Your task to perform on an android device: Go to Google Image 0: 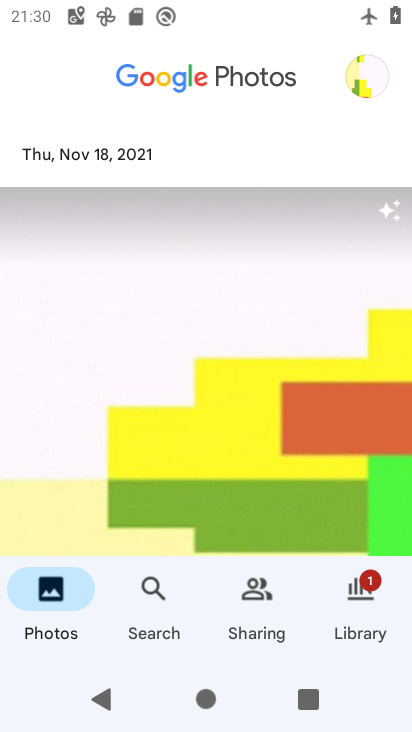
Step 0: press home button
Your task to perform on an android device: Go to Google Image 1: 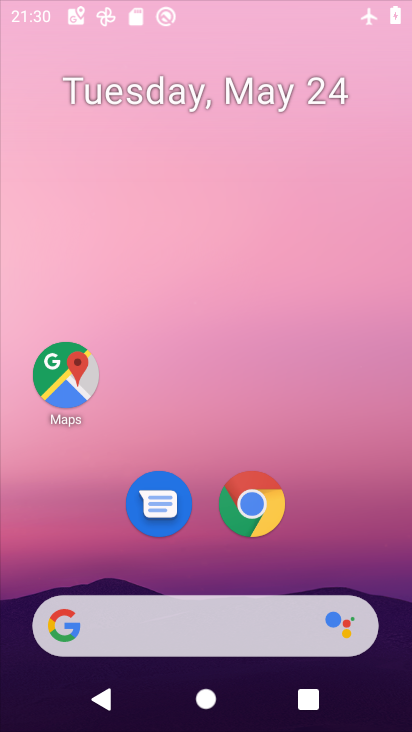
Step 1: drag from (233, 467) to (341, 38)
Your task to perform on an android device: Go to Google Image 2: 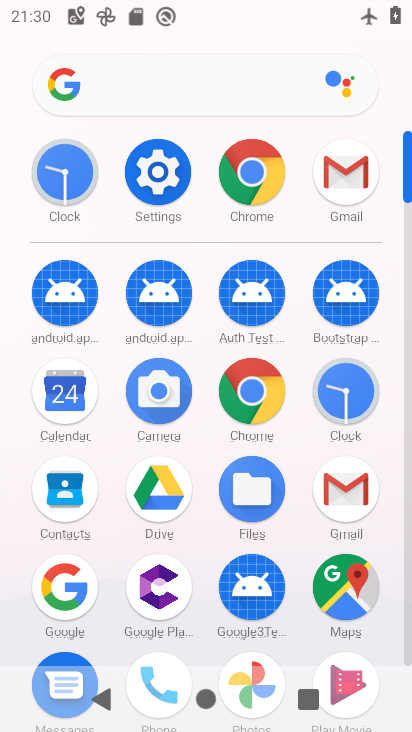
Step 2: click (69, 588)
Your task to perform on an android device: Go to Google Image 3: 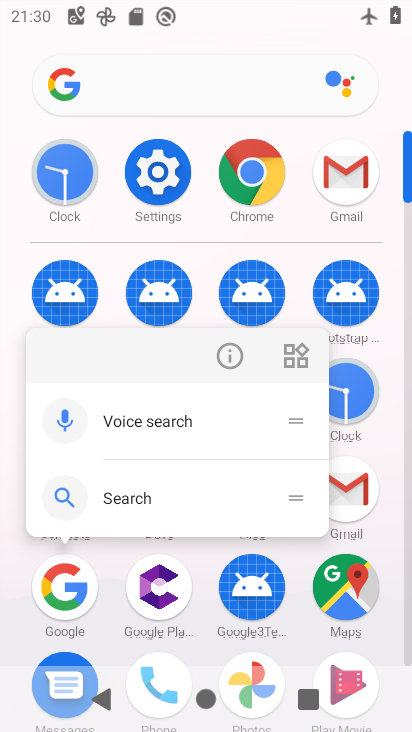
Step 3: click (220, 356)
Your task to perform on an android device: Go to Google Image 4: 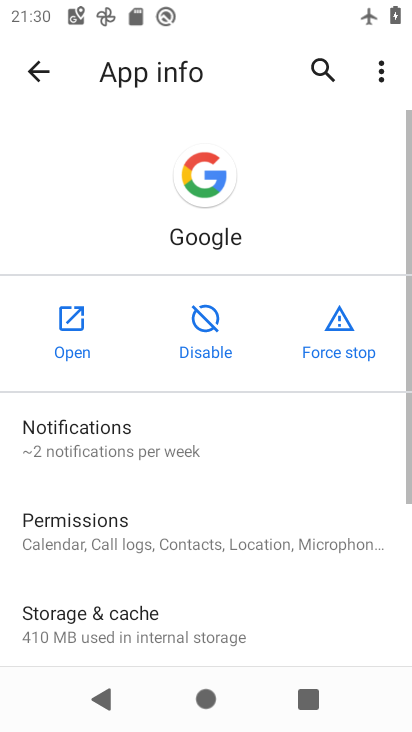
Step 4: click (76, 316)
Your task to perform on an android device: Go to Google Image 5: 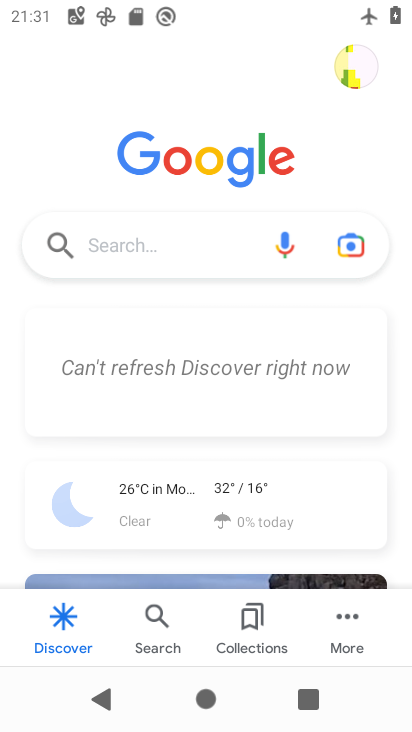
Step 5: task complete